Your task to perform on an android device: Go to display settings Image 0: 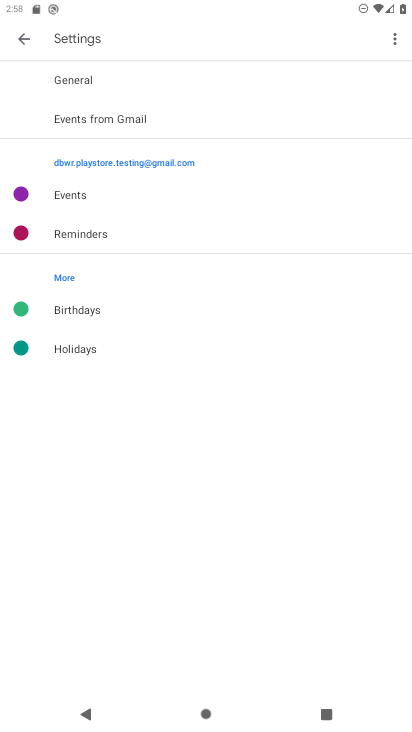
Step 0: press home button
Your task to perform on an android device: Go to display settings Image 1: 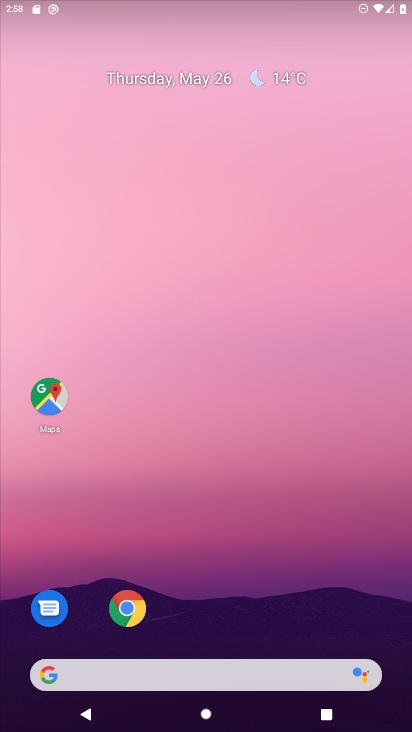
Step 1: drag from (326, 502) to (371, 16)
Your task to perform on an android device: Go to display settings Image 2: 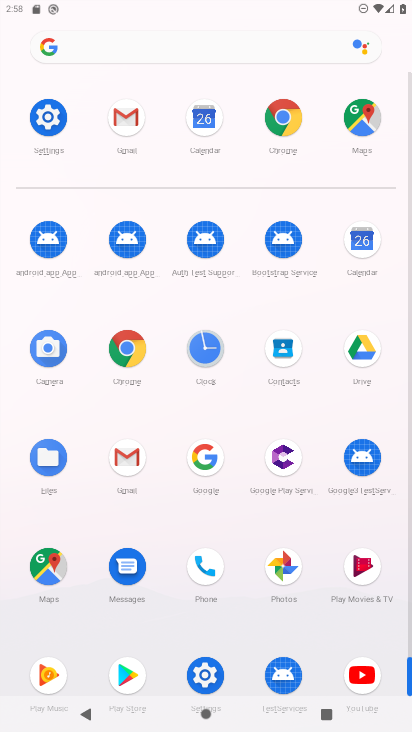
Step 2: click (47, 119)
Your task to perform on an android device: Go to display settings Image 3: 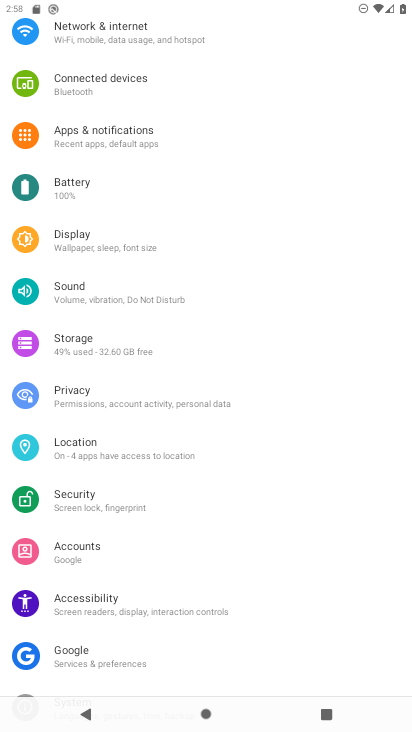
Step 3: click (125, 231)
Your task to perform on an android device: Go to display settings Image 4: 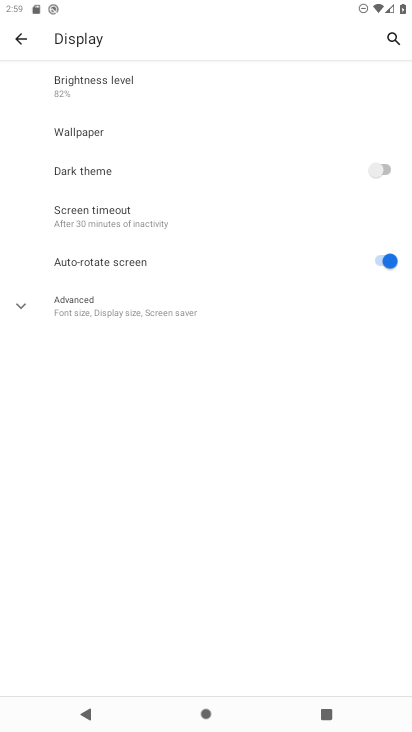
Step 4: task complete